Your task to perform on an android device: delete the emails in spam in the gmail app Image 0: 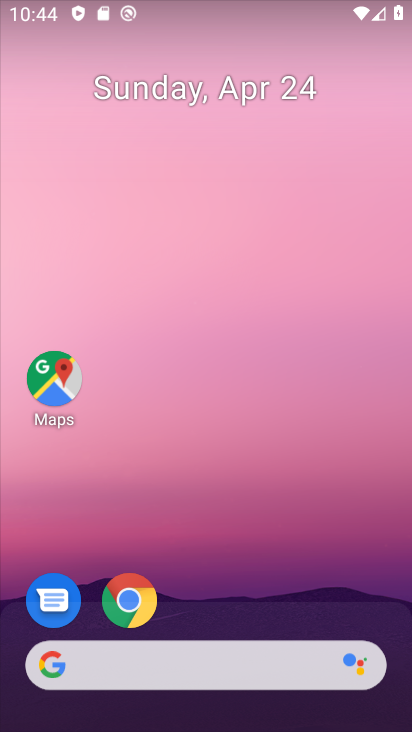
Step 0: drag from (236, 514) to (213, 20)
Your task to perform on an android device: delete the emails in spam in the gmail app Image 1: 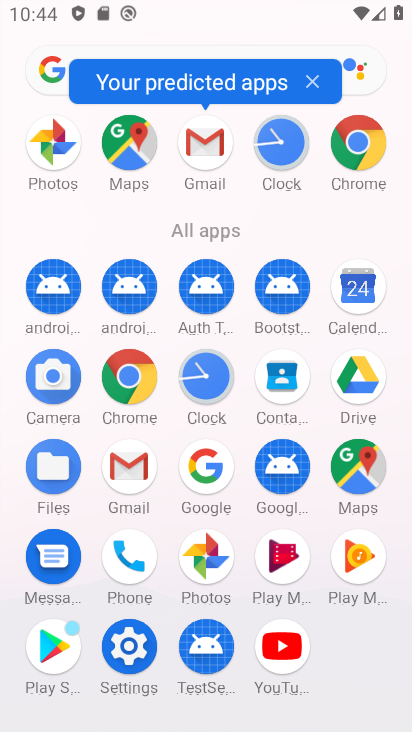
Step 1: click (128, 471)
Your task to perform on an android device: delete the emails in spam in the gmail app Image 2: 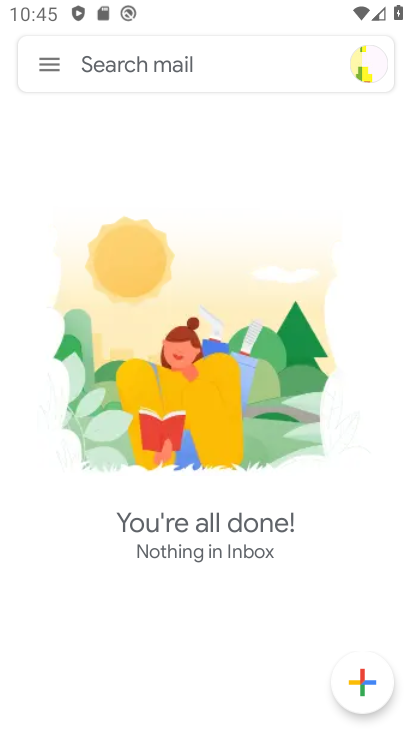
Step 2: click (49, 63)
Your task to perform on an android device: delete the emails in spam in the gmail app Image 3: 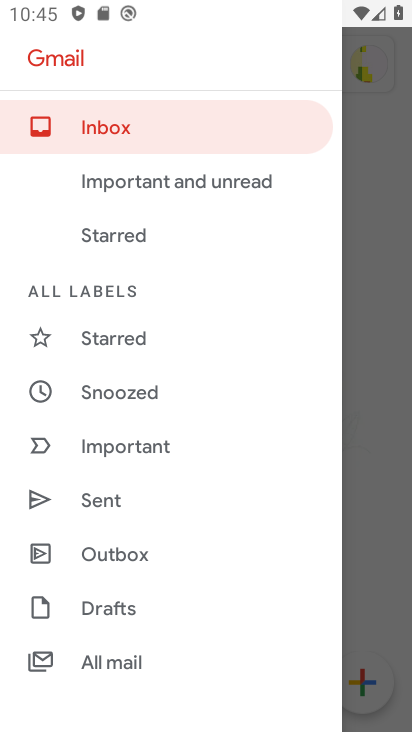
Step 3: drag from (141, 583) to (181, 220)
Your task to perform on an android device: delete the emails in spam in the gmail app Image 4: 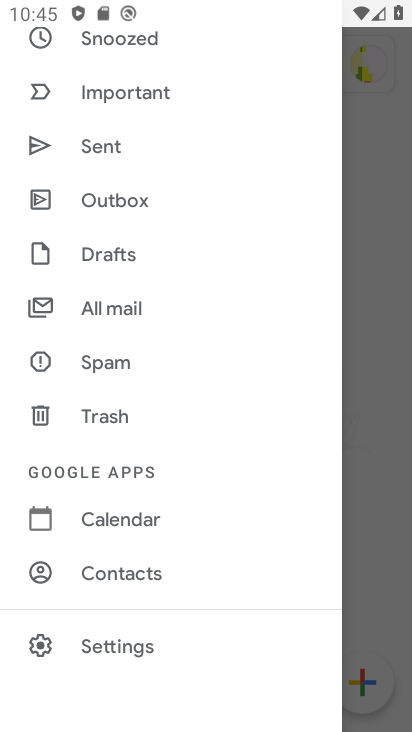
Step 4: click (143, 371)
Your task to perform on an android device: delete the emails in spam in the gmail app Image 5: 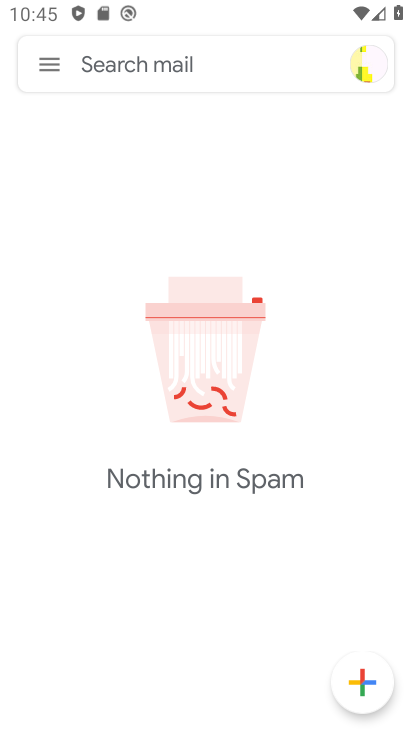
Step 5: task complete